Your task to perform on an android device: Open the calendar and show me this week's events? Image 0: 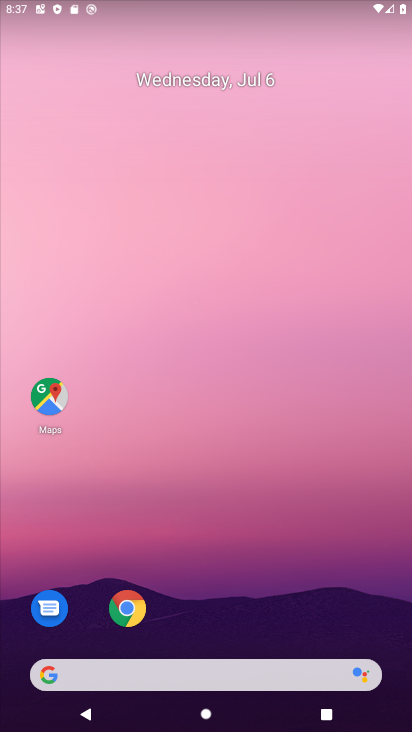
Step 0: drag from (148, 669) to (205, 225)
Your task to perform on an android device: Open the calendar and show me this week's events? Image 1: 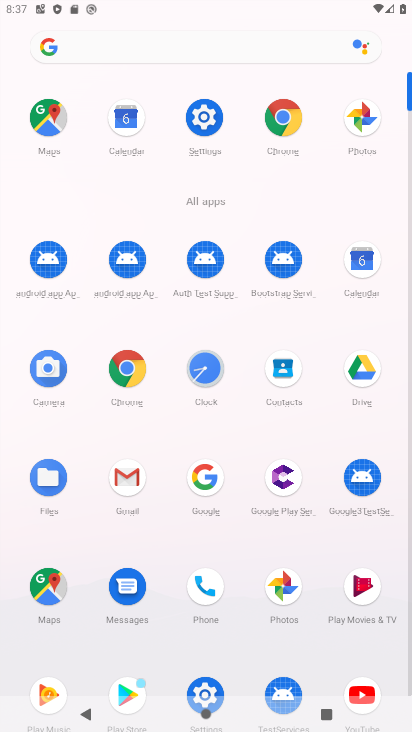
Step 1: click (358, 262)
Your task to perform on an android device: Open the calendar and show me this week's events? Image 2: 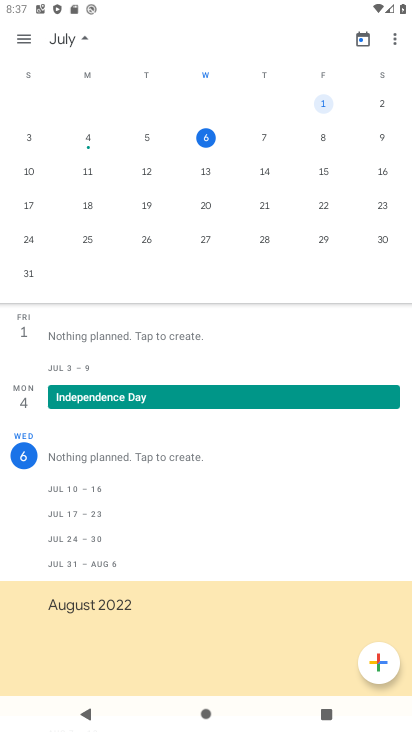
Step 2: click (67, 491)
Your task to perform on an android device: Open the calendar and show me this week's events? Image 3: 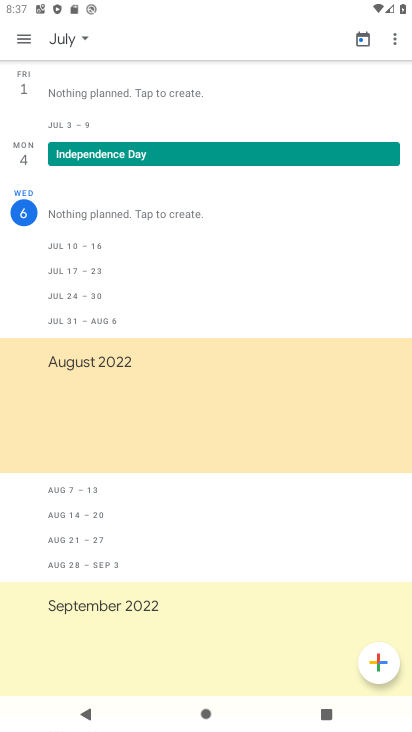
Step 3: task complete